Your task to perform on an android device: turn off wifi Image 0: 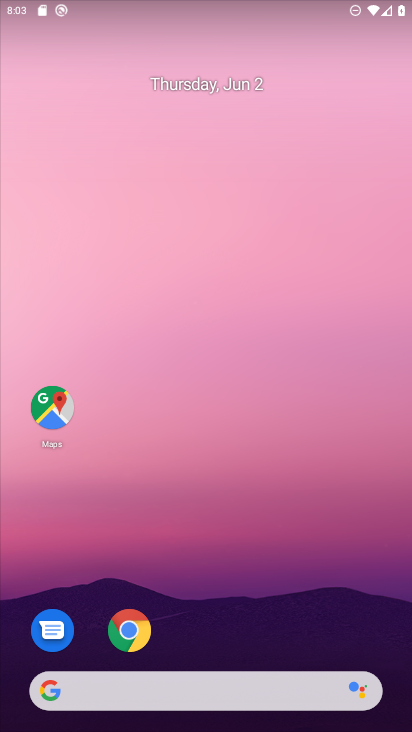
Step 0: drag from (165, 18) to (170, 564)
Your task to perform on an android device: turn off wifi Image 1: 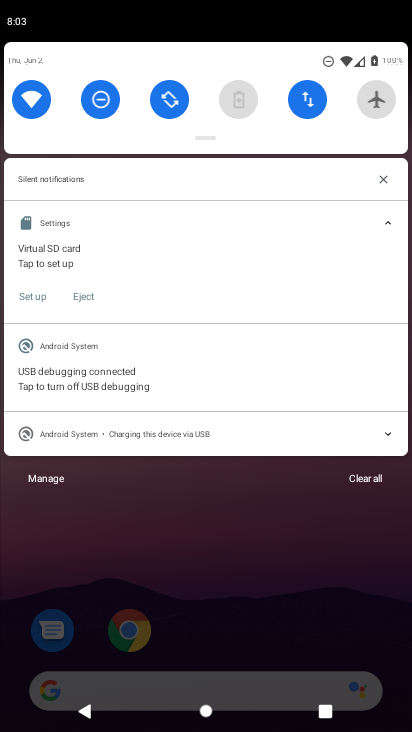
Step 1: click (30, 113)
Your task to perform on an android device: turn off wifi Image 2: 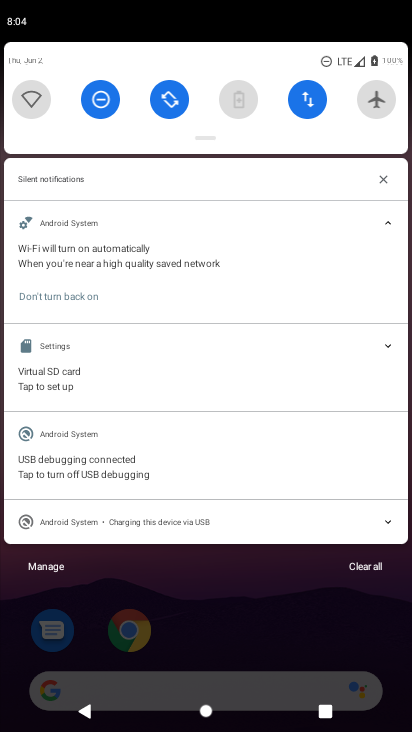
Step 2: task complete